Your task to perform on an android device: Show me productivity apps on the Play Store Image 0: 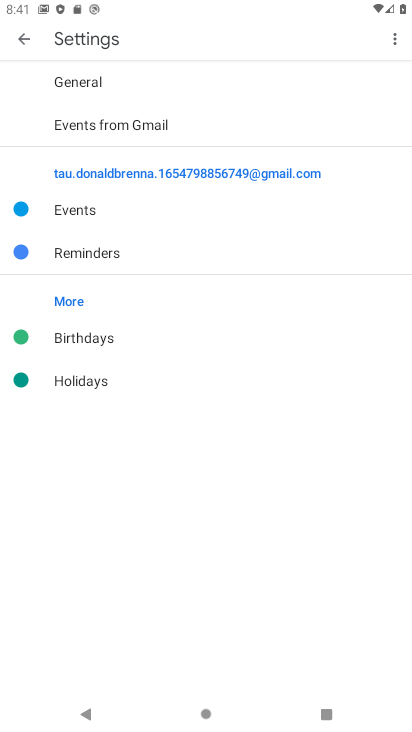
Step 0: press home button
Your task to perform on an android device: Show me productivity apps on the Play Store Image 1: 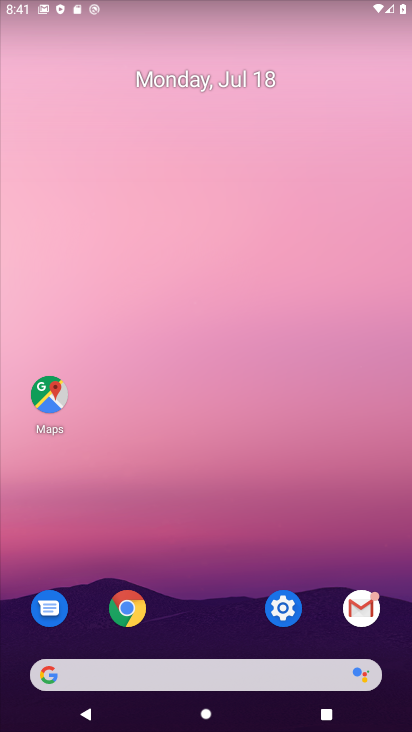
Step 1: drag from (282, 666) to (159, 230)
Your task to perform on an android device: Show me productivity apps on the Play Store Image 2: 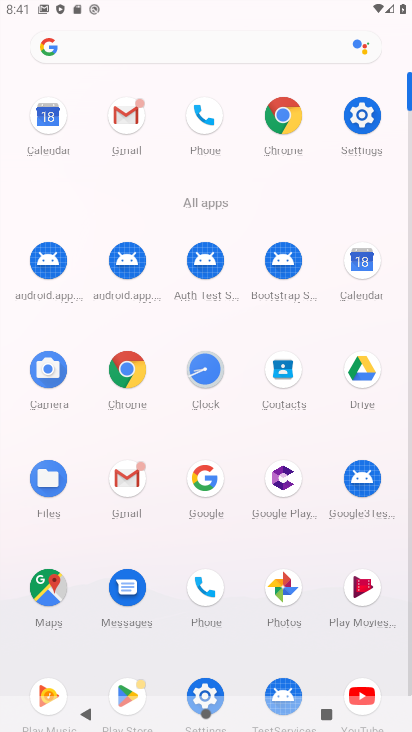
Step 2: click (124, 684)
Your task to perform on an android device: Show me productivity apps on the Play Store Image 3: 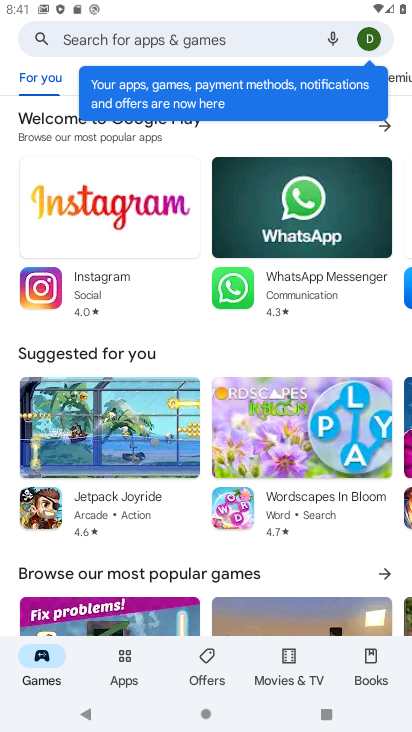
Step 3: click (144, 34)
Your task to perform on an android device: Show me productivity apps on the Play Store Image 4: 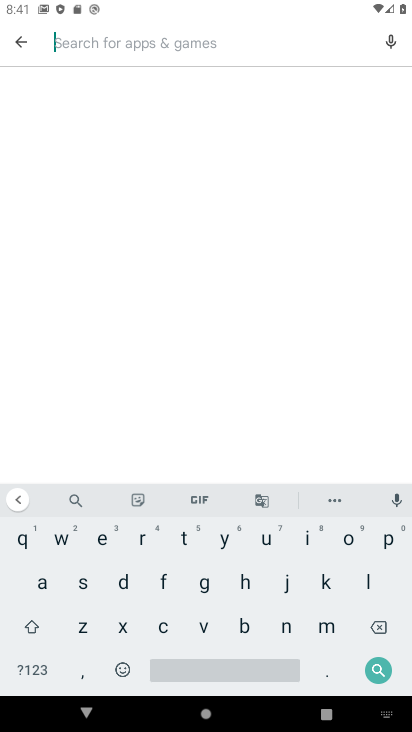
Step 4: click (385, 547)
Your task to perform on an android device: Show me productivity apps on the Play Store Image 5: 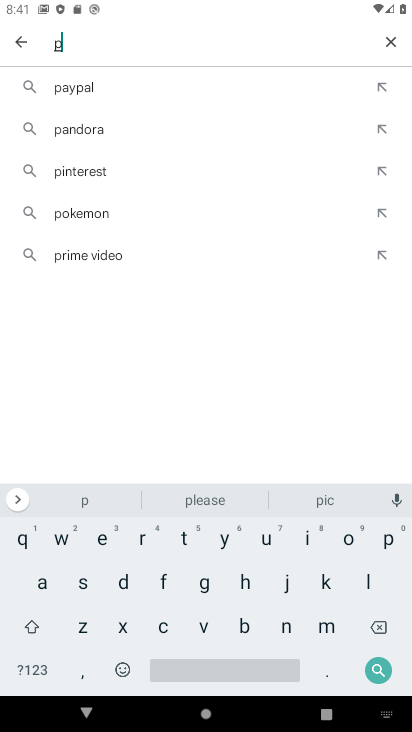
Step 5: click (141, 541)
Your task to perform on an android device: Show me productivity apps on the Play Store Image 6: 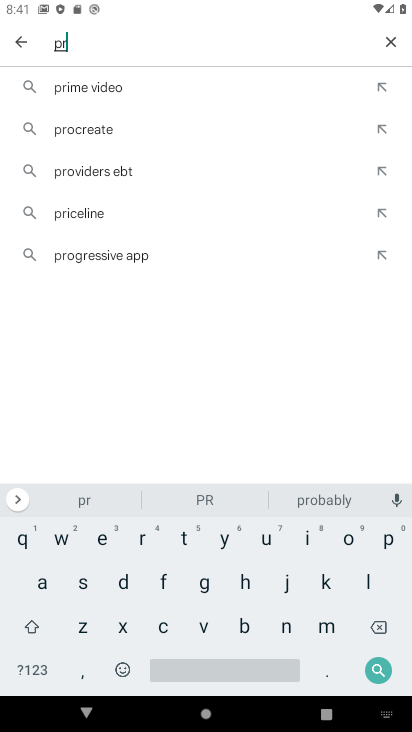
Step 6: click (353, 540)
Your task to perform on an android device: Show me productivity apps on the Play Store Image 7: 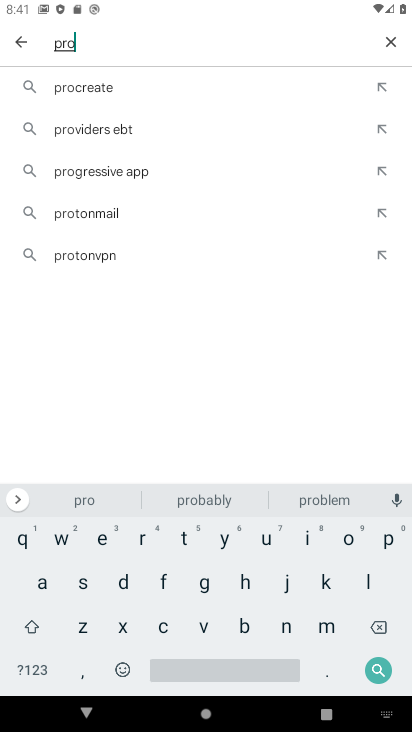
Step 7: click (120, 585)
Your task to perform on an android device: Show me productivity apps on the Play Store Image 8: 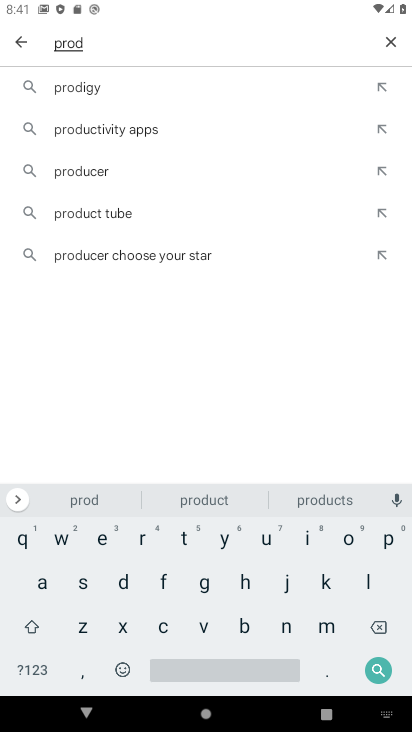
Step 8: click (135, 125)
Your task to perform on an android device: Show me productivity apps on the Play Store Image 9: 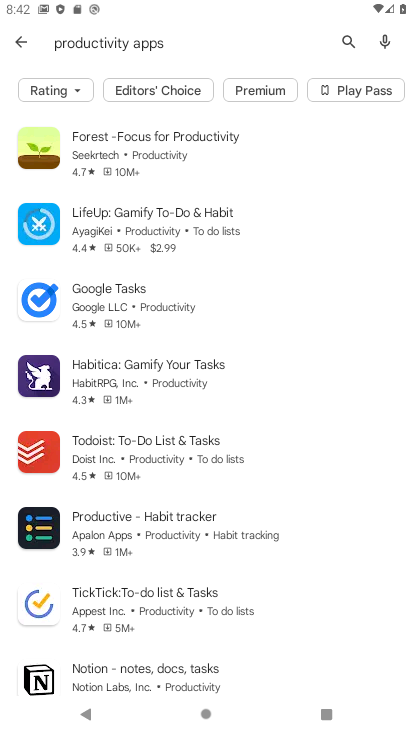
Step 9: task complete